Your task to perform on an android device: Is it going to rain today? Image 0: 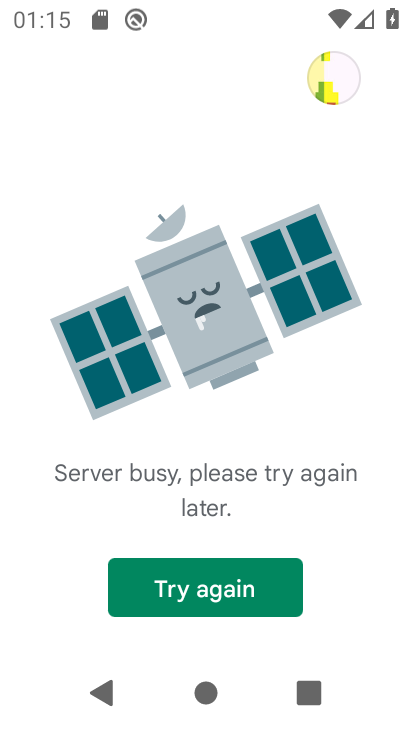
Step 0: press home button
Your task to perform on an android device: Is it going to rain today? Image 1: 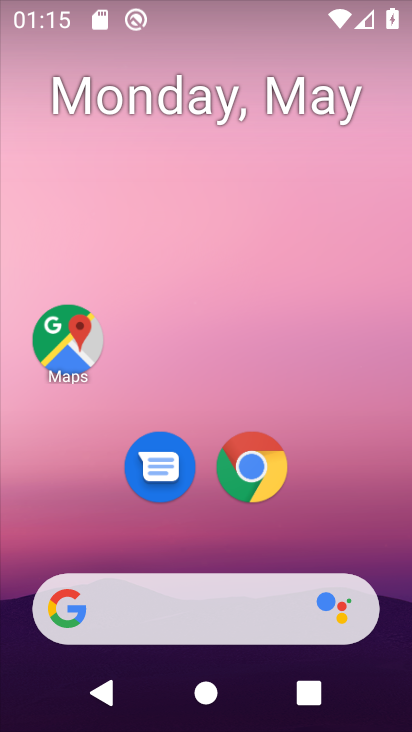
Step 1: drag from (208, 563) to (198, 44)
Your task to perform on an android device: Is it going to rain today? Image 2: 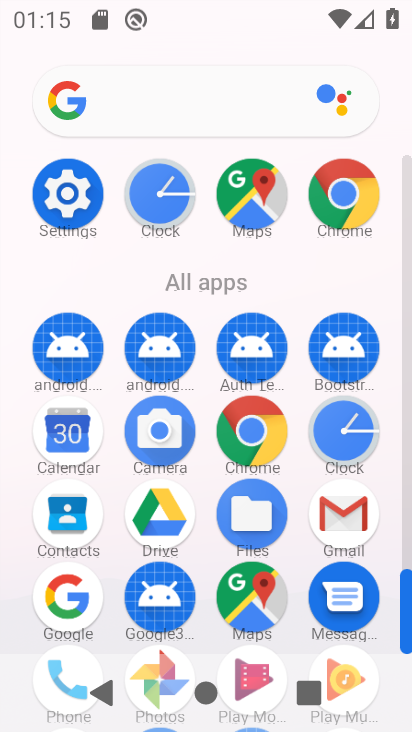
Step 2: click (62, 596)
Your task to perform on an android device: Is it going to rain today? Image 3: 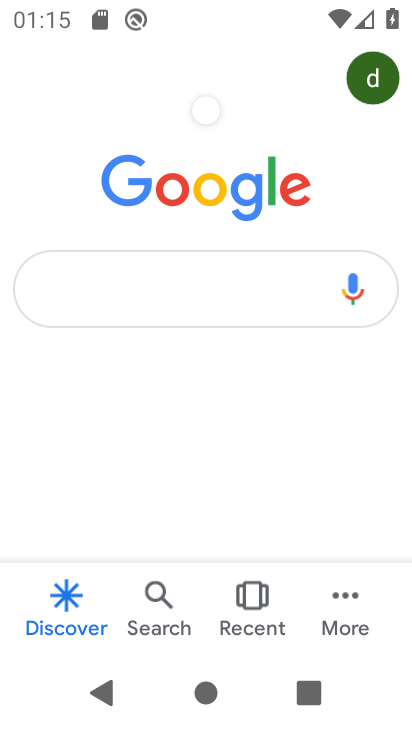
Step 3: click (213, 283)
Your task to perform on an android device: Is it going to rain today? Image 4: 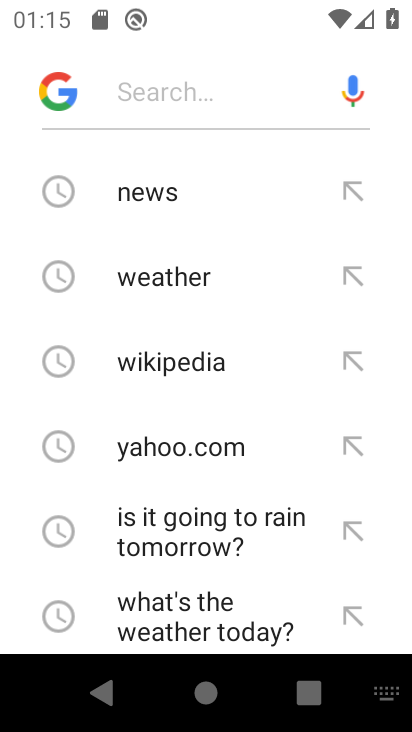
Step 4: click (174, 277)
Your task to perform on an android device: Is it going to rain today? Image 5: 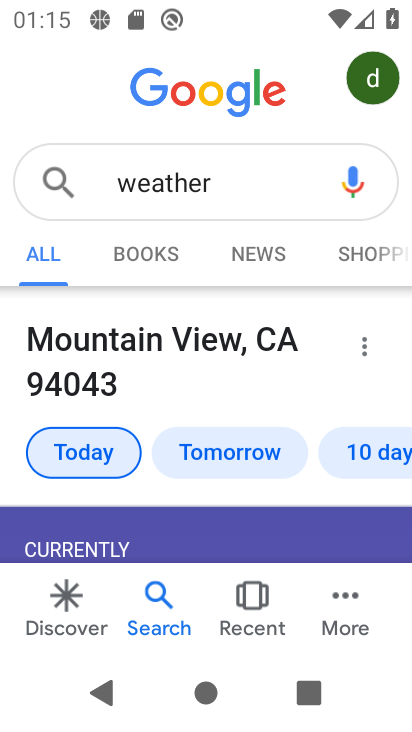
Step 5: click (225, 454)
Your task to perform on an android device: Is it going to rain today? Image 6: 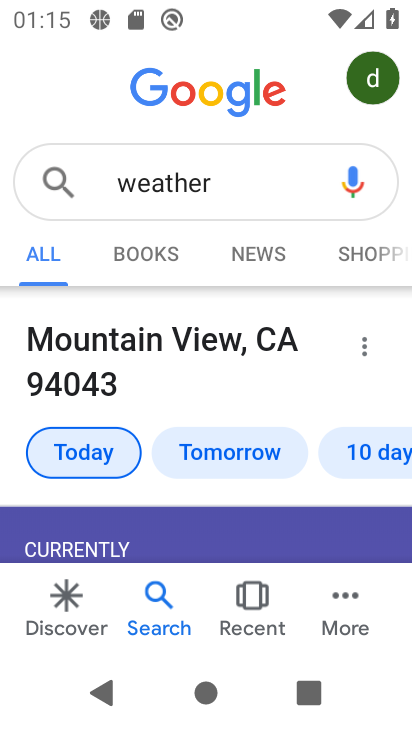
Step 6: task complete